Your task to perform on an android device: set default search engine in the chrome app Image 0: 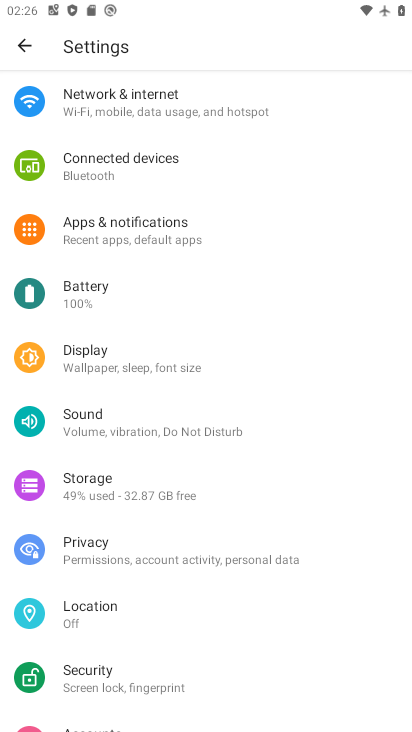
Step 0: press home button
Your task to perform on an android device: set default search engine in the chrome app Image 1: 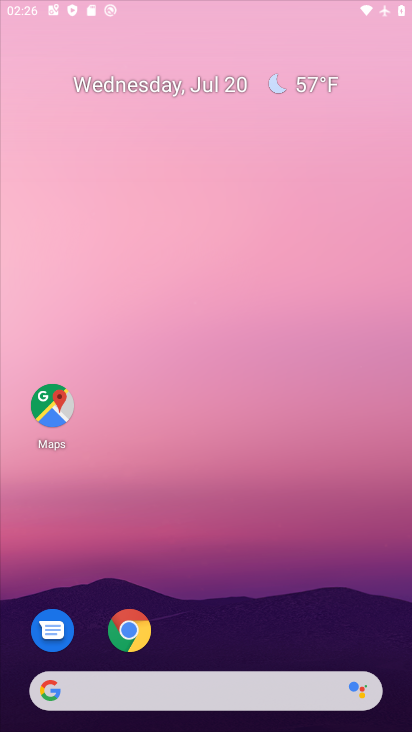
Step 1: drag from (284, 583) to (182, 71)
Your task to perform on an android device: set default search engine in the chrome app Image 2: 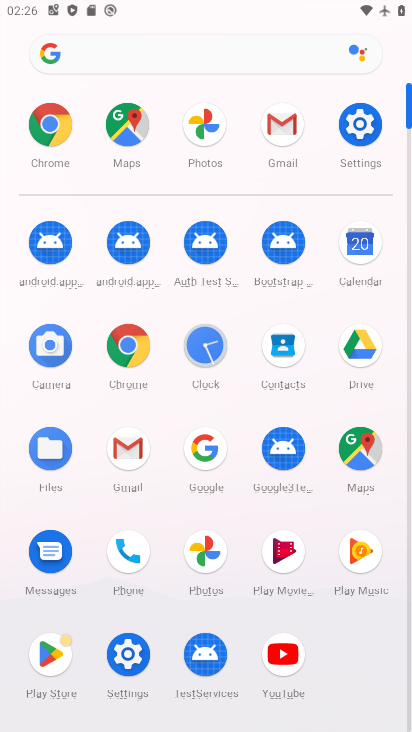
Step 2: click (54, 115)
Your task to perform on an android device: set default search engine in the chrome app Image 3: 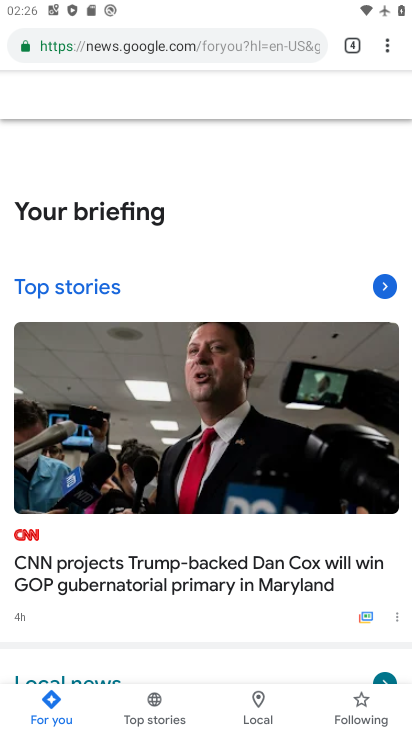
Step 3: drag from (383, 40) to (228, 589)
Your task to perform on an android device: set default search engine in the chrome app Image 4: 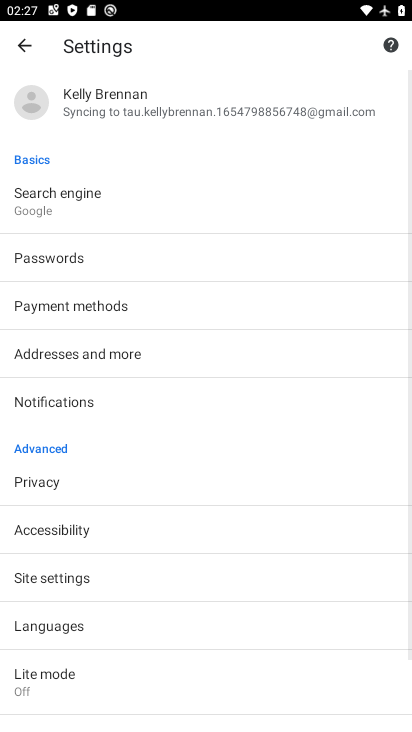
Step 4: click (88, 188)
Your task to perform on an android device: set default search engine in the chrome app Image 5: 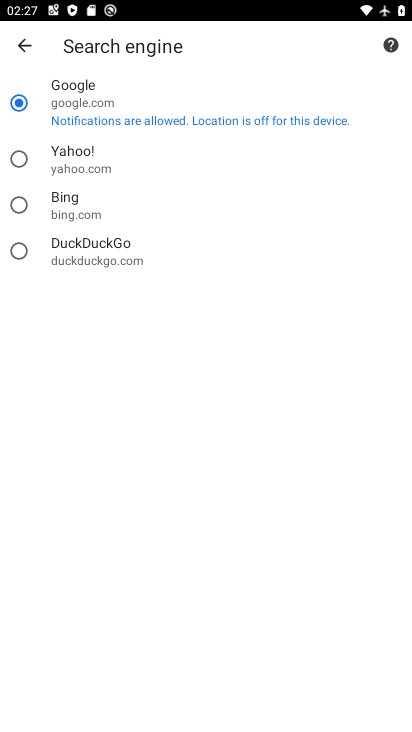
Step 5: task complete